Your task to perform on an android device: Open network settings Image 0: 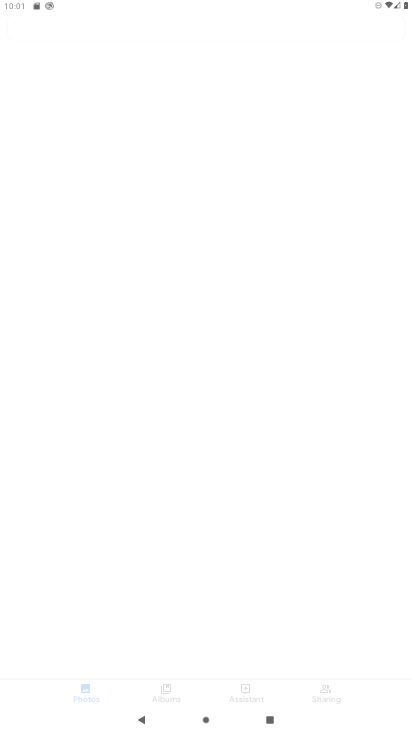
Step 0: drag from (318, 634) to (292, 117)
Your task to perform on an android device: Open network settings Image 1: 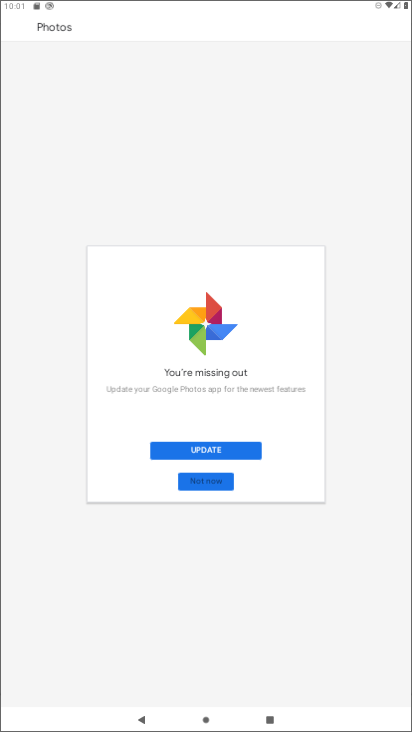
Step 1: press home button
Your task to perform on an android device: Open network settings Image 2: 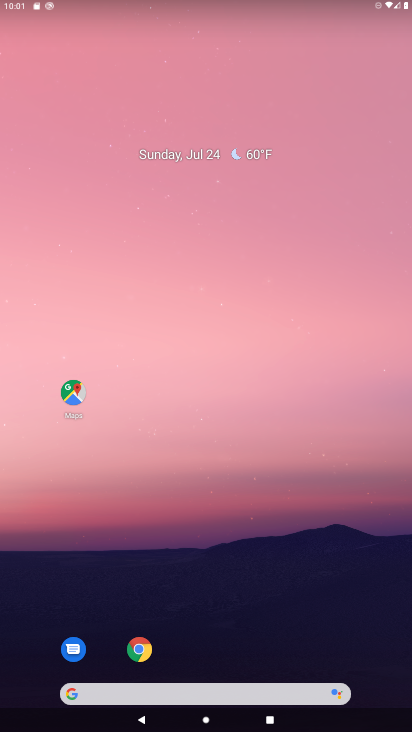
Step 2: drag from (294, 573) to (279, 199)
Your task to perform on an android device: Open network settings Image 3: 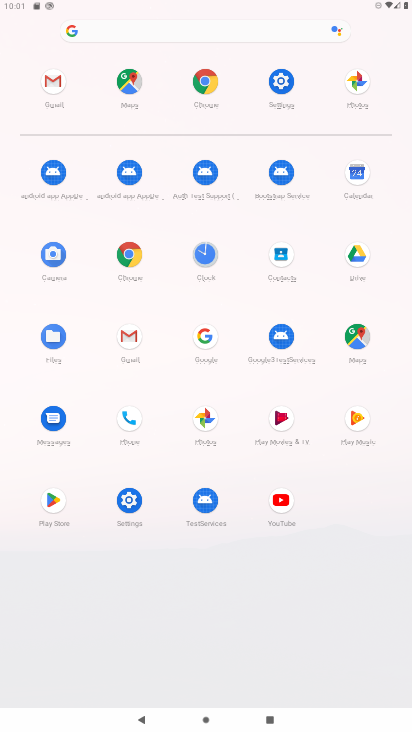
Step 3: click (285, 76)
Your task to perform on an android device: Open network settings Image 4: 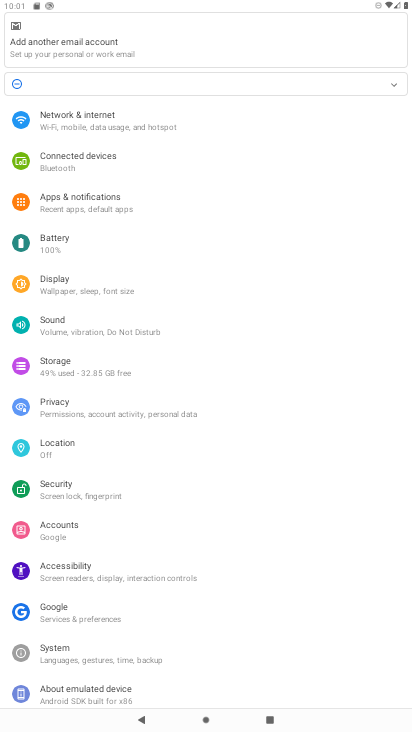
Step 4: click (108, 126)
Your task to perform on an android device: Open network settings Image 5: 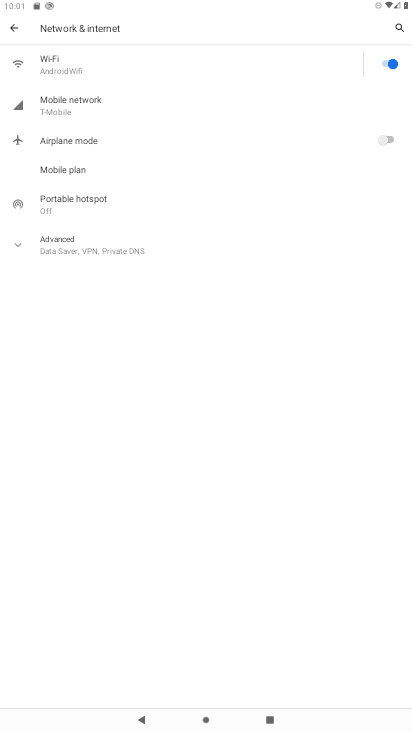
Step 5: task complete